Your task to perform on an android device: star an email in the gmail app Image 0: 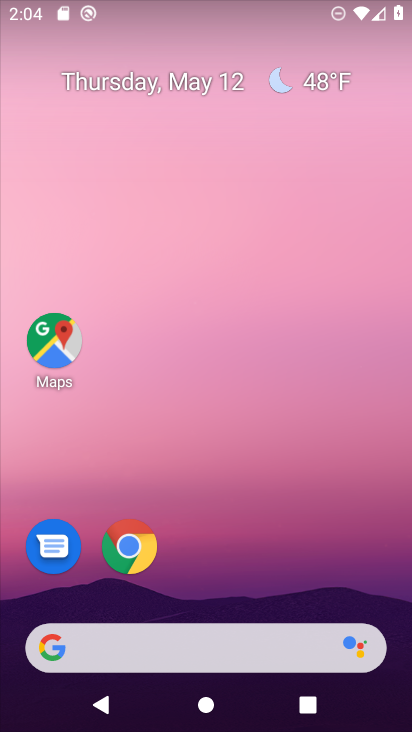
Step 0: drag from (244, 675) to (203, 277)
Your task to perform on an android device: star an email in the gmail app Image 1: 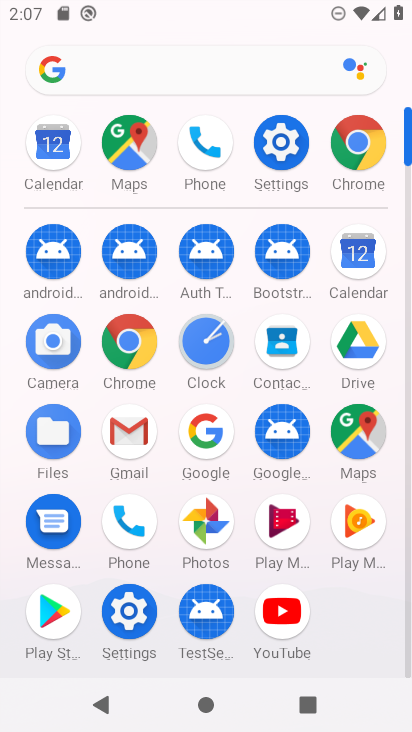
Step 1: click (127, 419)
Your task to perform on an android device: star an email in the gmail app Image 2: 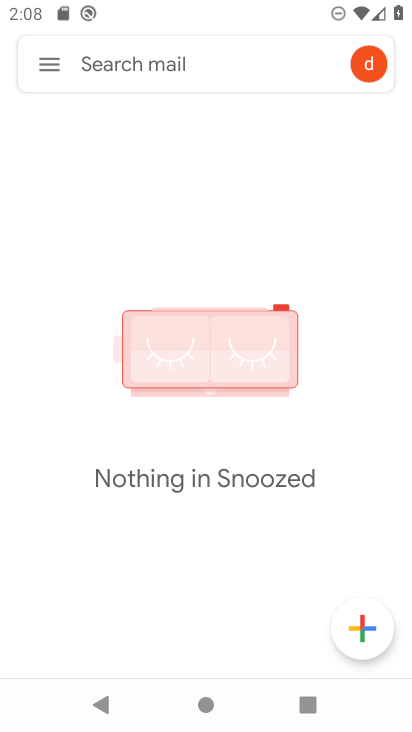
Step 2: click (42, 79)
Your task to perform on an android device: star an email in the gmail app Image 3: 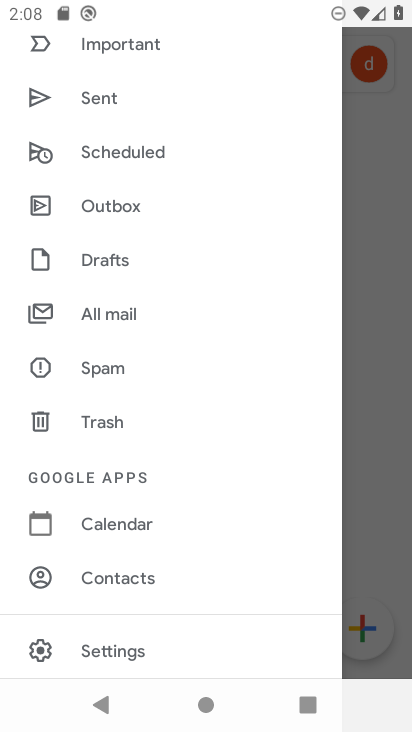
Step 3: drag from (106, 102) to (188, 345)
Your task to perform on an android device: star an email in the gmail app Image 4: 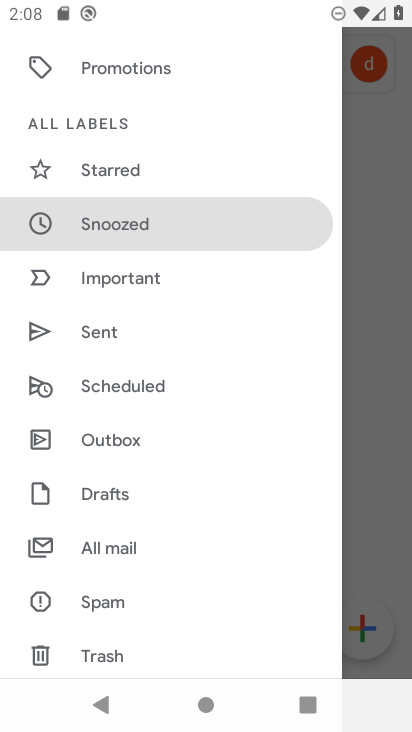
Step 4: click (129, 173)
Your task to perform on an android device: star an email in the gmail app Image 5: 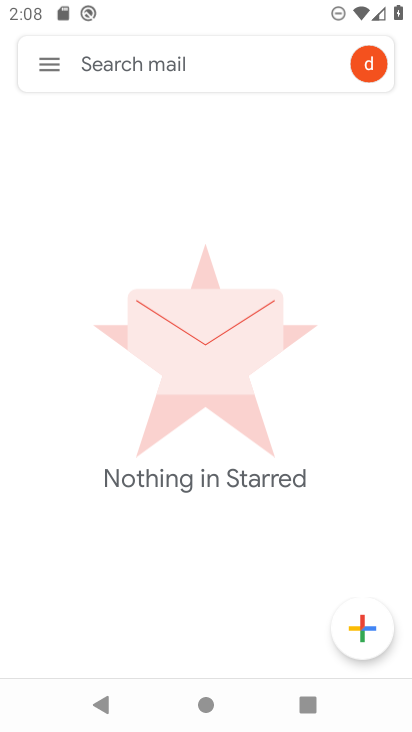
Step 5: task complete